Your task to perform on an android device: Go to notification settings Image 0: 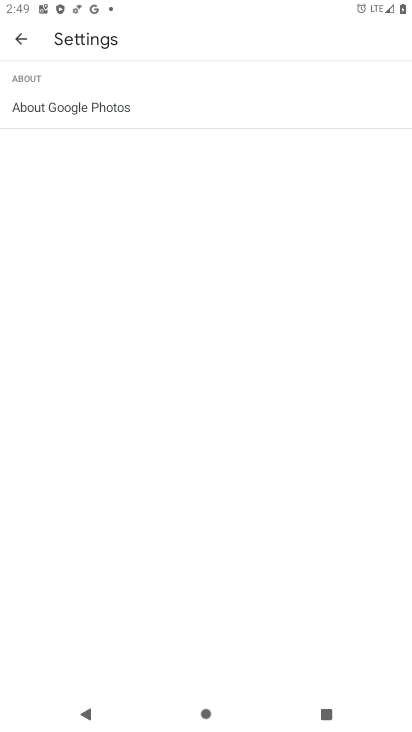
Step 0: press home button
Your task to perform on an android device: Go to notification settings Image 1: 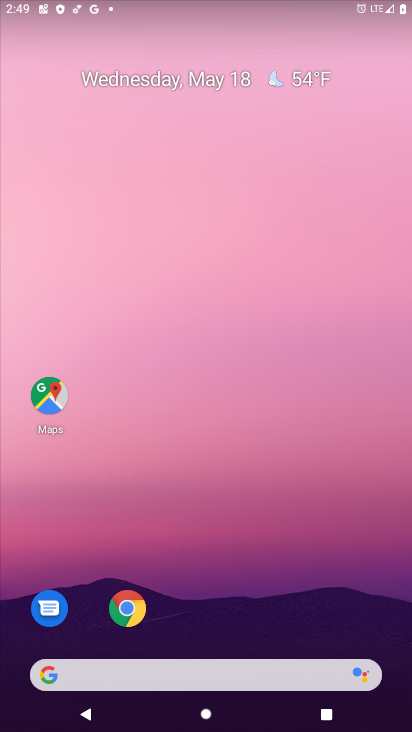
Step 1: drag from (299, 590) to (304, 11)
Your task to perform on an android device: Go to notification settings Image 2: 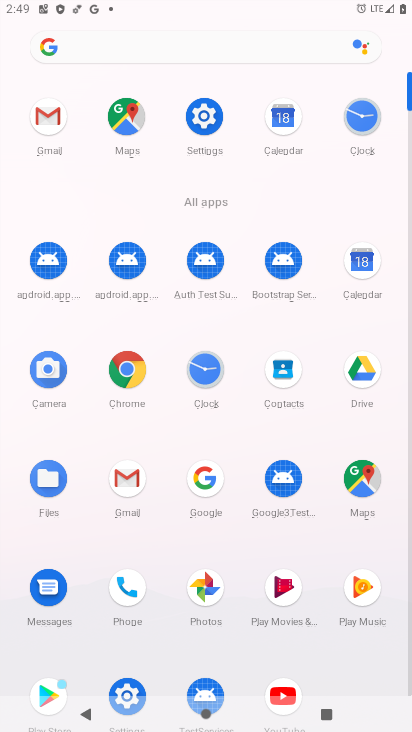
Step 2: click (203, 129)
Your task to perform on an android device: Go to notification settings Image 3: 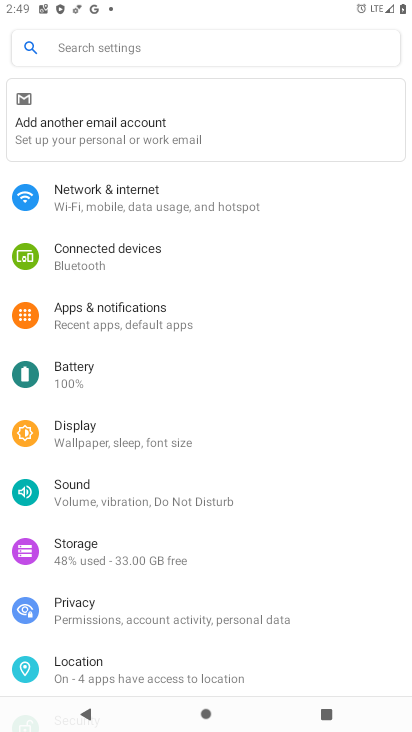
Step 3: click (122, 328)
Your task to perform on an android device: Go to notification settings Image 4: 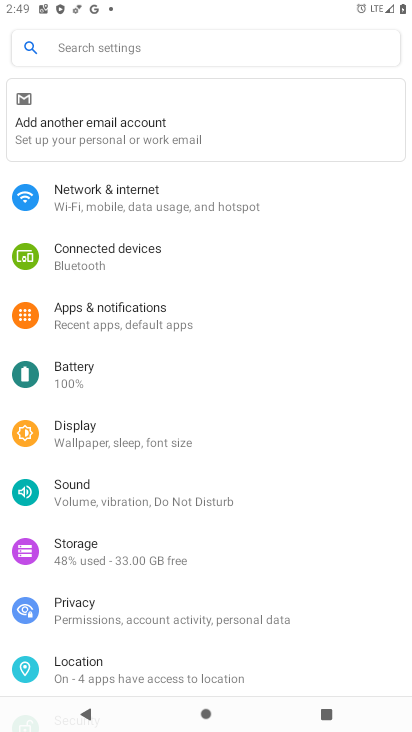
Step 4: click (109, 325)
Your task to perform on an android device: Go to notification settings Image 5: 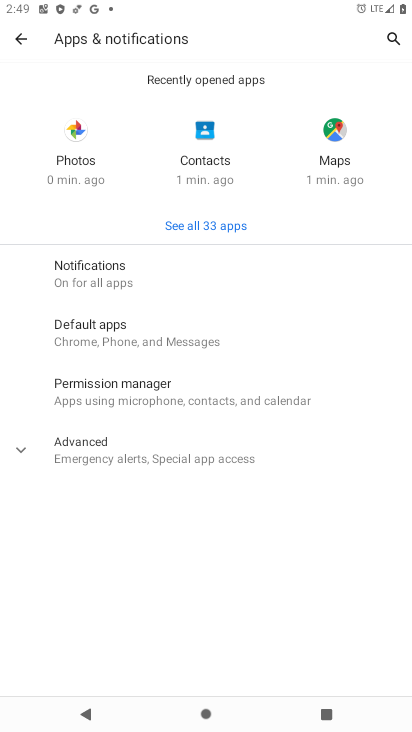
Step 5: task complete